Your task to perform on an android device: What's on my calendar today? Image 0: 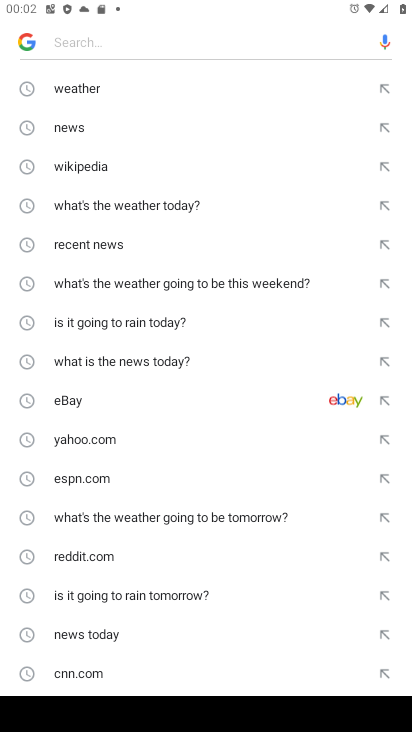
Step 0: press home button
Your task to perform on an android device: What's on my calendar today? Image 1: 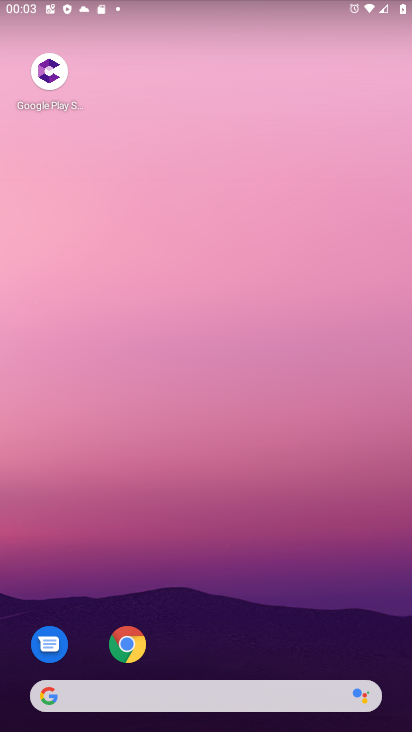
Step 1: drag from (347, 653) to (315, 133)
Your task to perform on an android device: What's on my calendar today? Image 2: 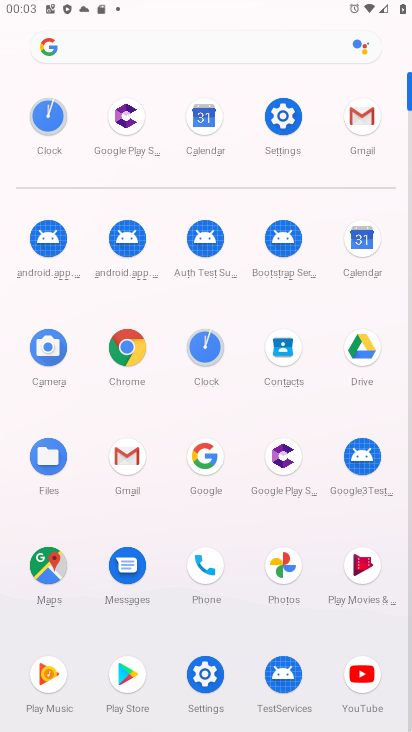
Step 2: click (362, 240)
Your task to perform on an android device: What's on my calendar today? Image 3: 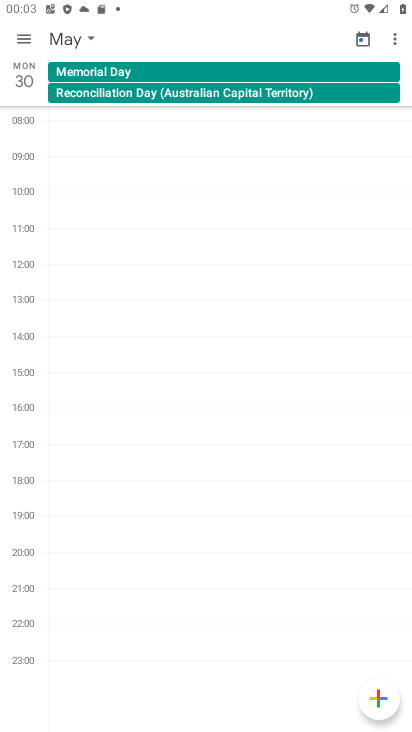
Step 3: task complete